Your task to perform on an android device: turn on javascript in the chrome app Image 0: 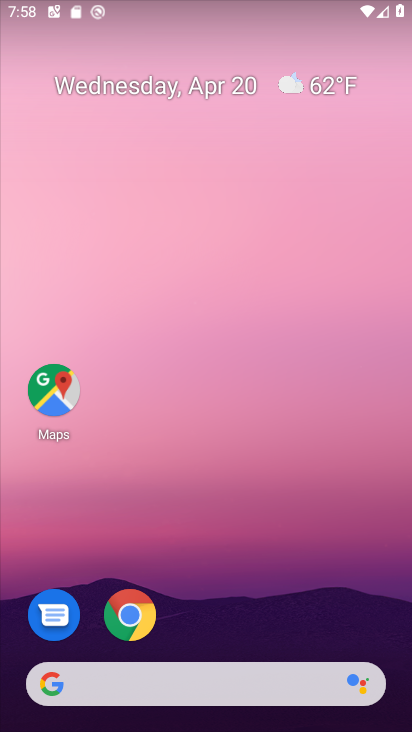
Step 0: click (143, 613)
Your task to perform on an android device: turn on javascript in the chrome app Image 1: 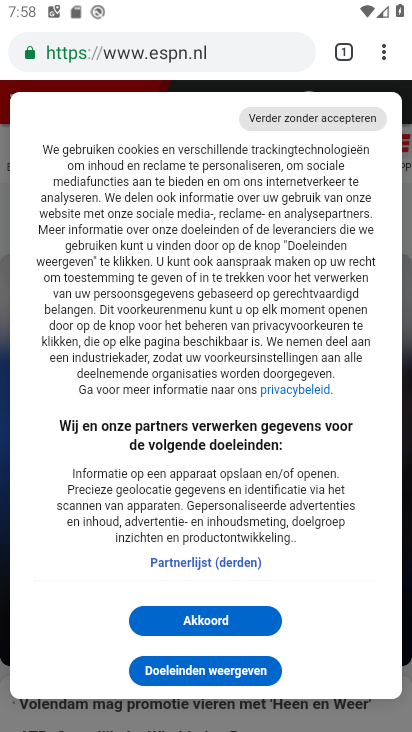
Step 1: click (377, 54)
Your task to perform on an android device: turn on javascript in the chrome app Image 2: 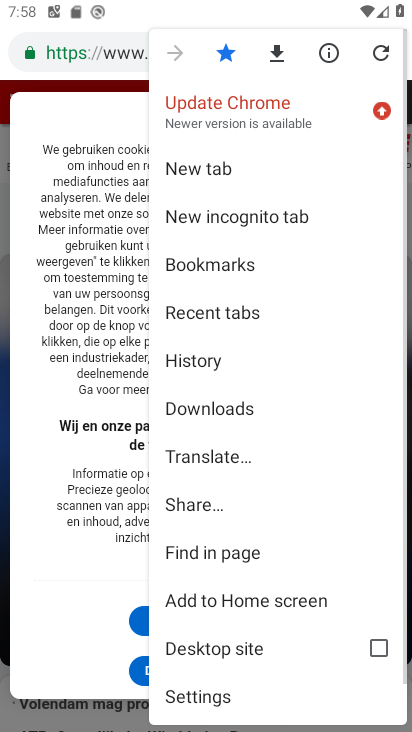
Step 2: click (208, 687)
Your task to perform on an android device: turn on javascript in the chrome app Image 3: 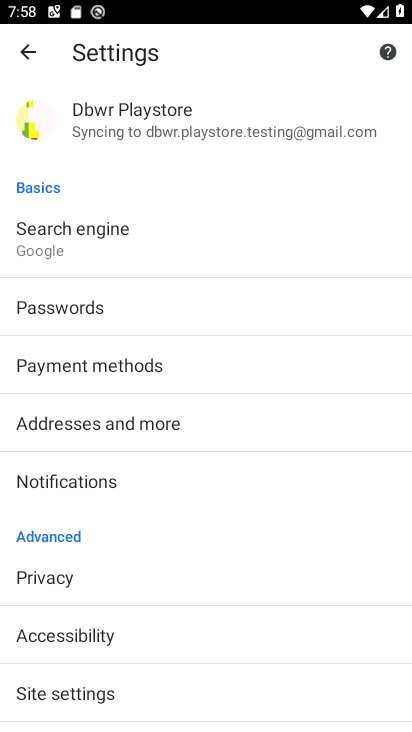
Step 3: click (51, 695)
Your task to perform on an android device: turn on javascript in the chrome app Image 4: 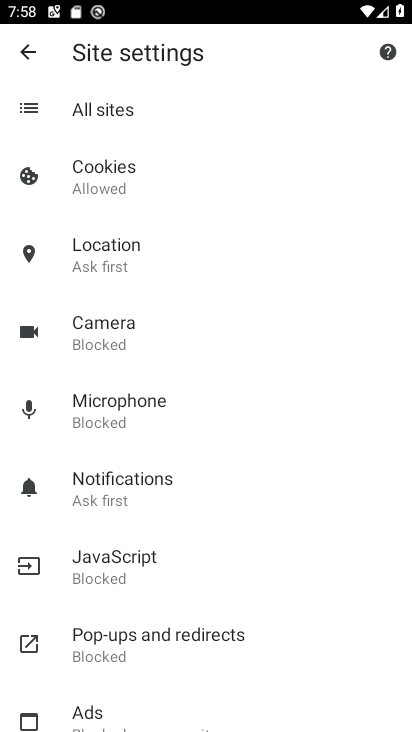
Step 4: click (102, 572)
Your task to perform on an android device: turn on javascript in the chrome app Image 5: 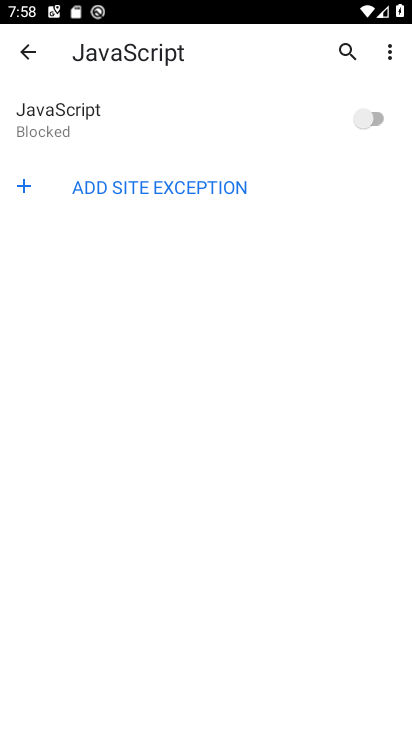
Step 5: click (372, 116)
Your task to perform on an android device: turn on javascript in the chrome app Image 6: 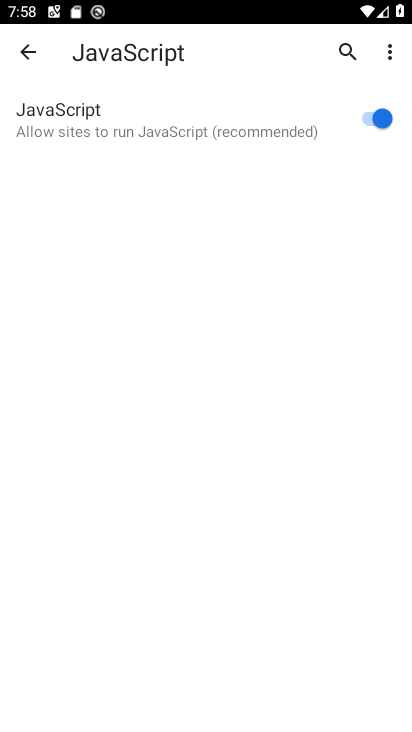
Step 6: task complete